Your task to perform on an android device: toggle sleep mode Image 0: 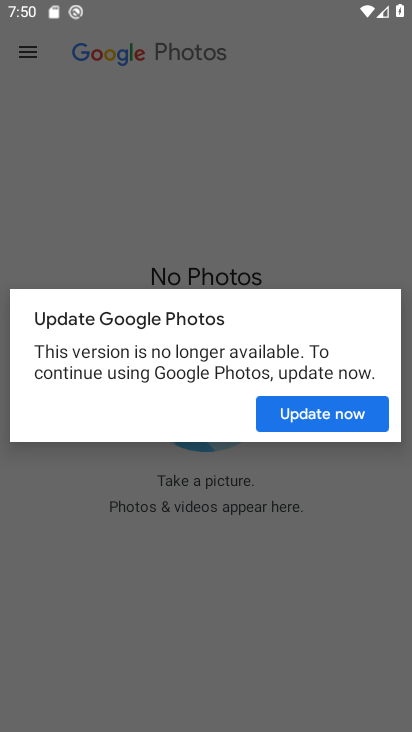
Step 0: press home button
Your task to perform on an android device: toggle sleep mode Image 1: 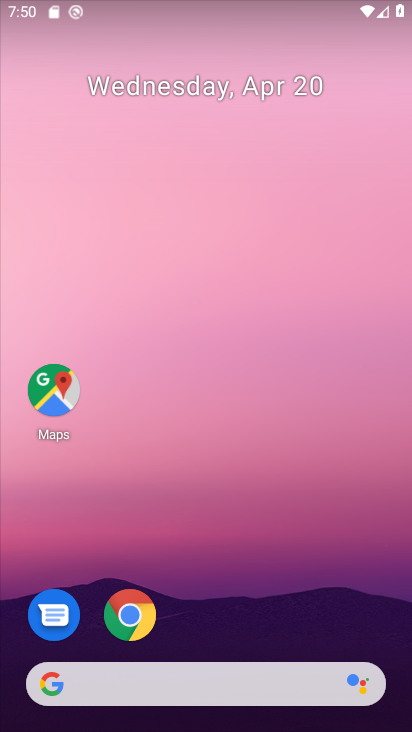
Step 1: drag from (230, 620) to (270, 27)
Your task to perform on an android device: toggle sleep mode Image 2: 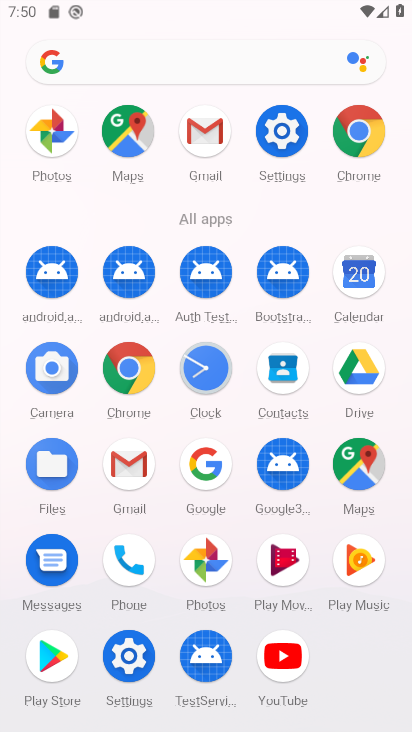
Step 2: click (294, 147)
Your task to perform on an android device: toggle sleep mode Image 3: 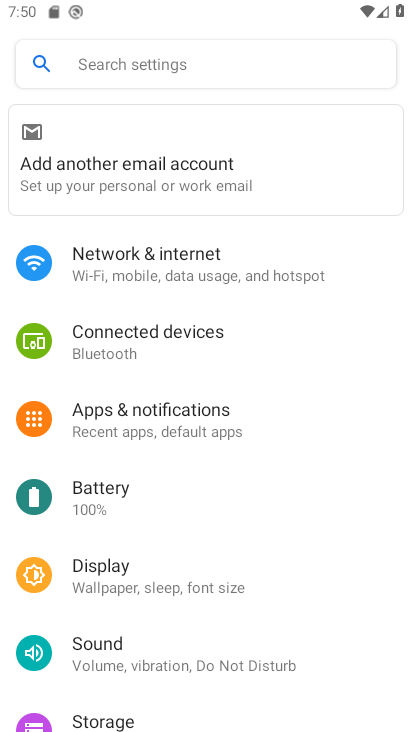
Step 3: click (190, 55)
Your task to perform on an android device: toggle sleep mode Image 4: 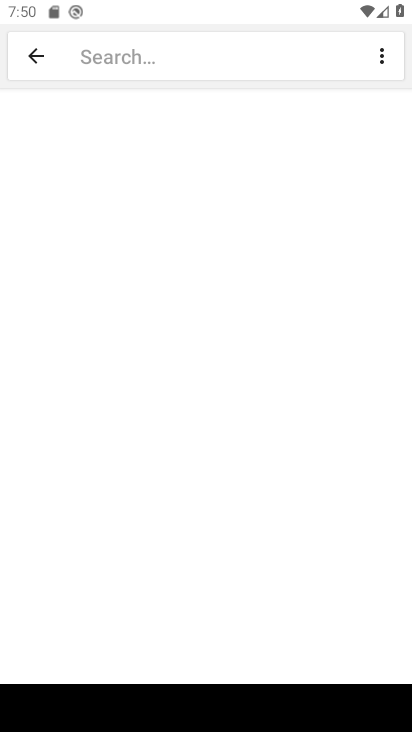
Step 4: type "sleep mode"
Your task to perform on an android device: toggle sleep mode Image 5: 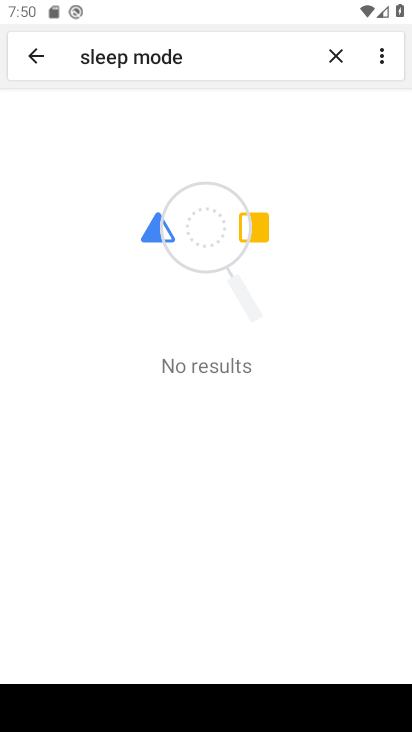
Step 5: task complete